Your task to perform on an android device: turn on the 24-hour format for clock Image 0: 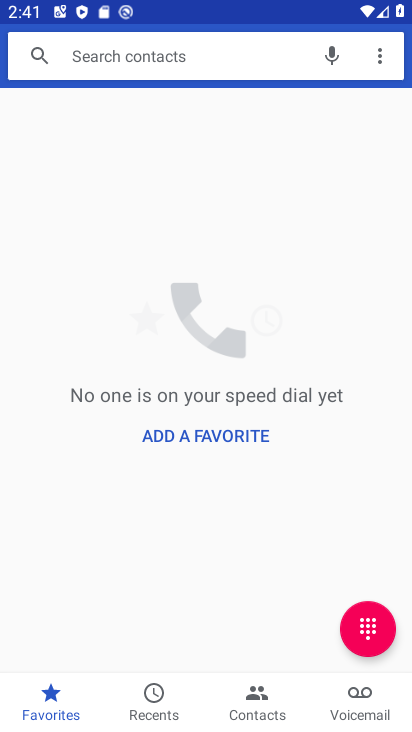
Step 0: press home button
Your task to perform on an android device: turn on the 24-hour format for clock Image 1: 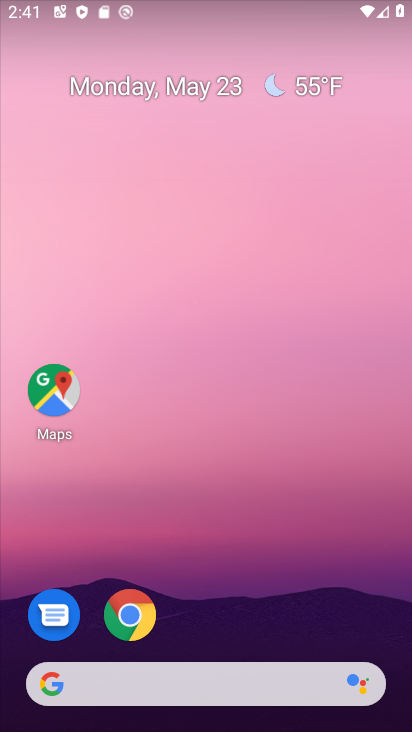
Step 1: drag from (386, 630) to (366, 166)
Your task to perform on an android device: turn on the 24-hour format for clock Image 2: 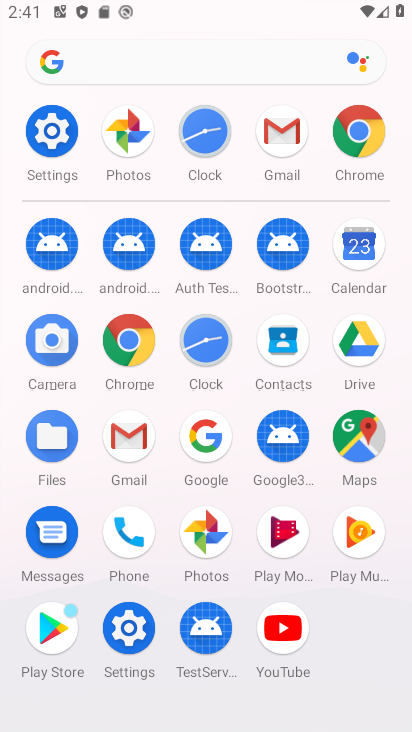
Step 2: click (212, 350)
Your task to perform on an android device: turn on the 24-hour format for clock Image 3: 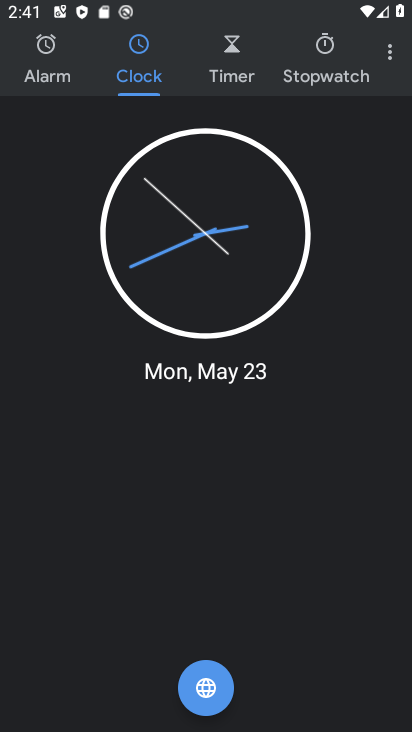
Step 3: click (389, 59)
Your task to perform on an android device: turn on the 24-hour format for clock Image 4: 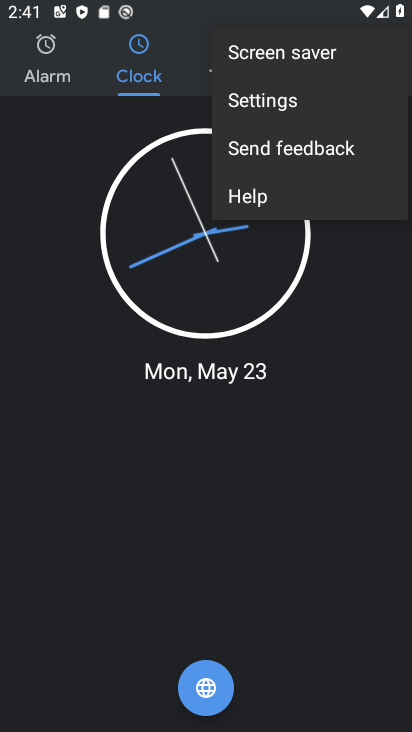
Step 4: click (317, 120)
Your task to perform on an android device: turn on the 24-hour format for clock Image 5: 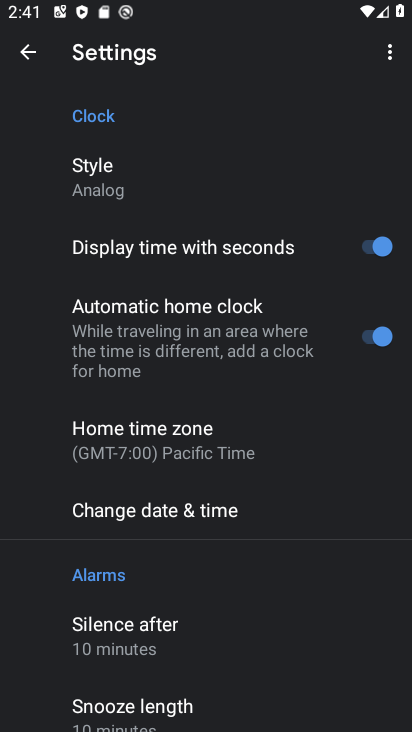
Step 5: drag from (328, 520) to (325, 392)
Your task to perform on an android device: turn on the 24-hour format for clock Image 6: 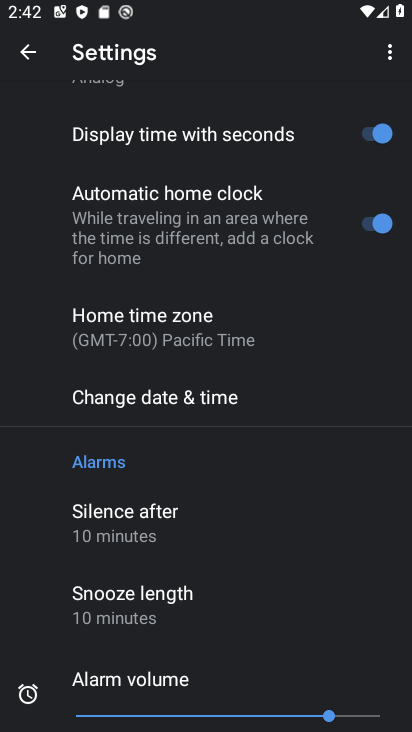
Step 6: drag from (308, 542) to (318, 438)
Your task to perform on an android device: turn on the 24-hour format for clock Image 7: 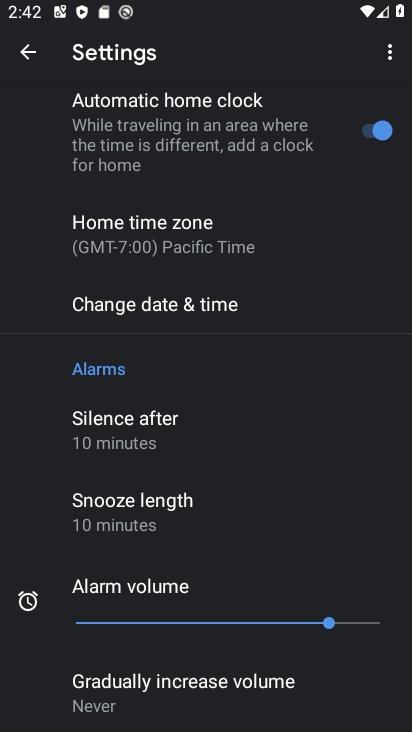
Step 7: drag from (295, 542) to (298, 447)
Your task to perform on an android device: turn on the 24-hour format for clock Image 8: 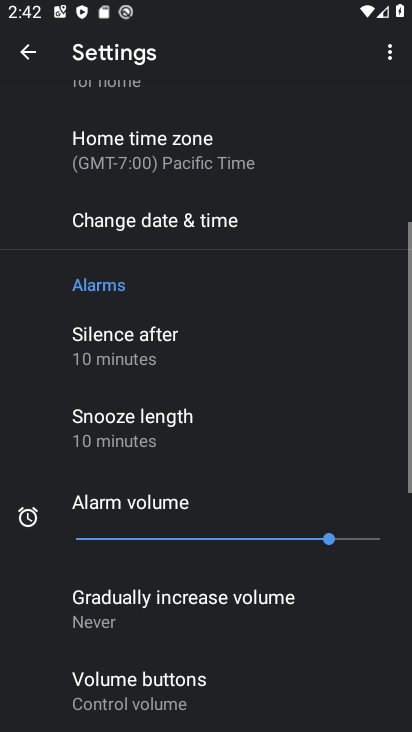
Step 8: drag from (283, 610) to (289, 496)
Your task to perform on an android device: turn on the 24-hour format for clock Image 9: 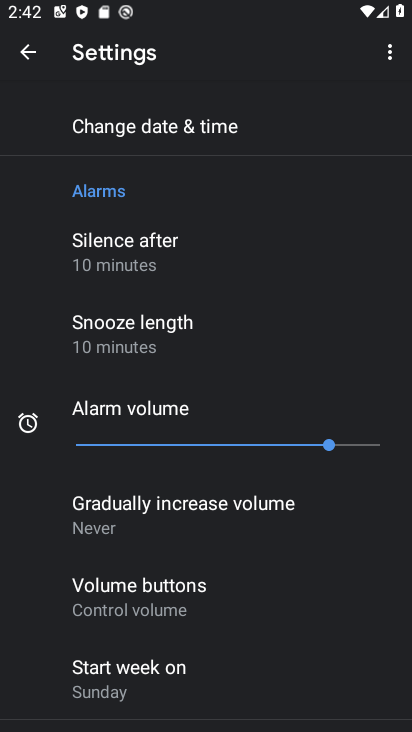
Step 9: drag from (289, 602) to (291, 517)
Your task to perform on an android device: turn on the 24-hour format for clock Image 10: 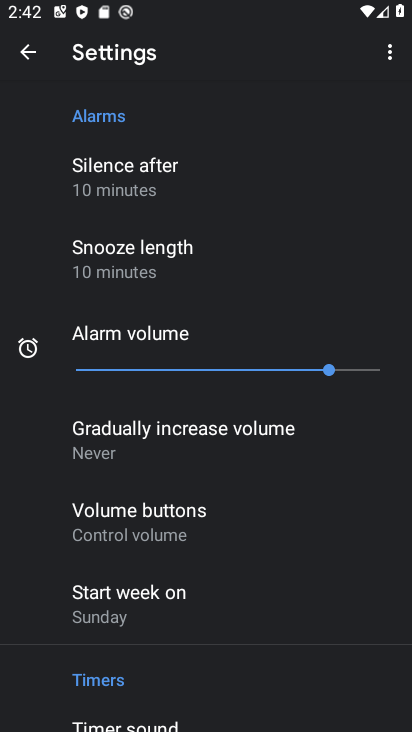
Step 10: drag from (294, 607) to (292, 509)
Your task to perform on an android device: turn on the 24-hour format for clock Image 11: 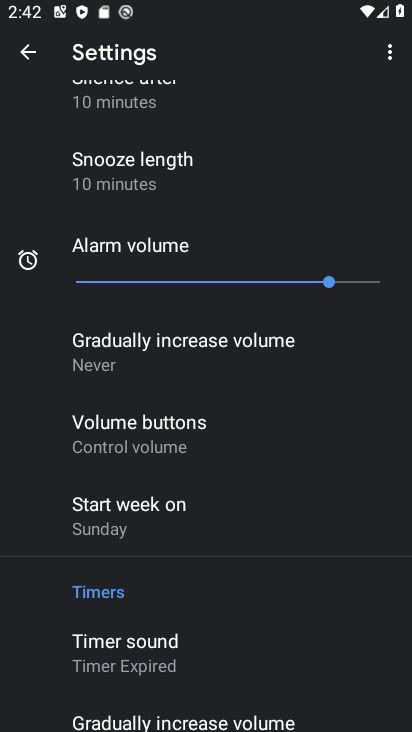
Step 11: drag from (279, 607) to (288, 528)
Your task to perform on an android device: turn on the 24-hour format for clock Image 12: 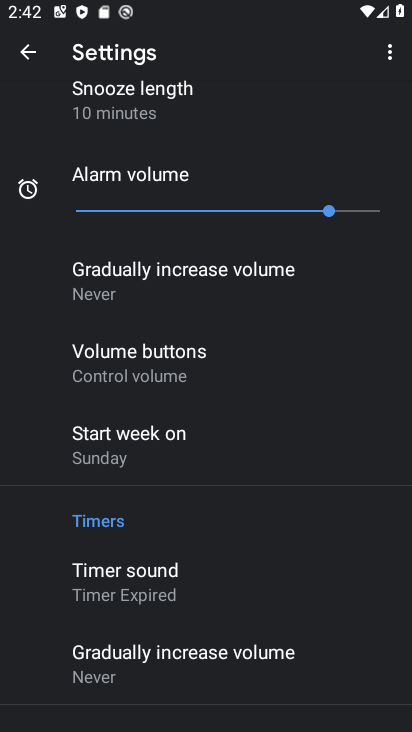
Step 12: drag from (290, 664) to (309, 533)
Your task to perform on an android device: turn on the 24-hour format for clock Image 13: 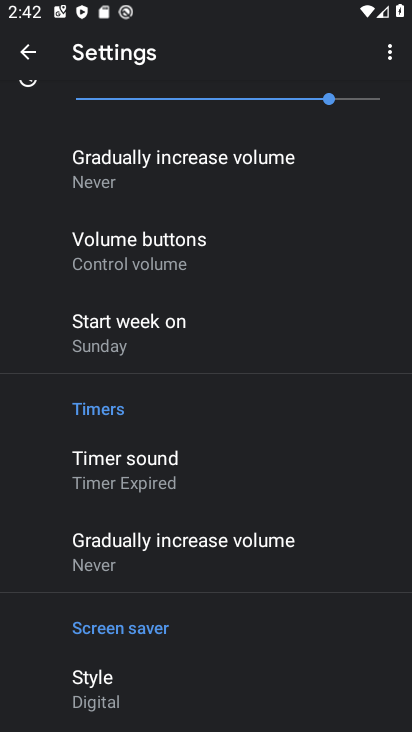
Step 13: drag from (291, 636) to (290, 536)
Your task to perform on an android device: turn on the 24-hour format for clock Image 14: 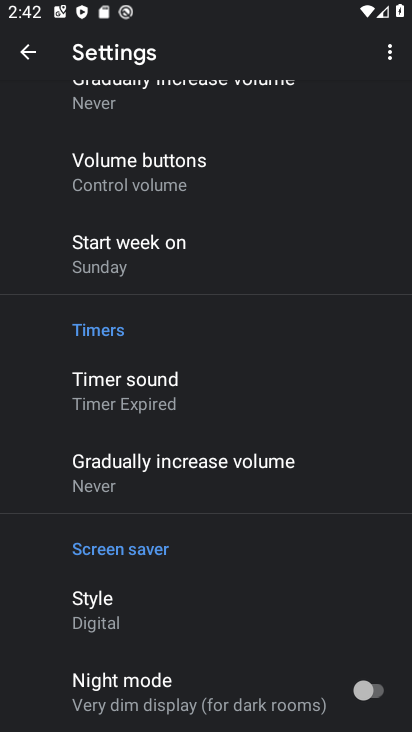
Step 14: drag from (288, 626) to (294, 525)
Your task to perform on an android device: turn on the 24-hour format for clock Image 15: 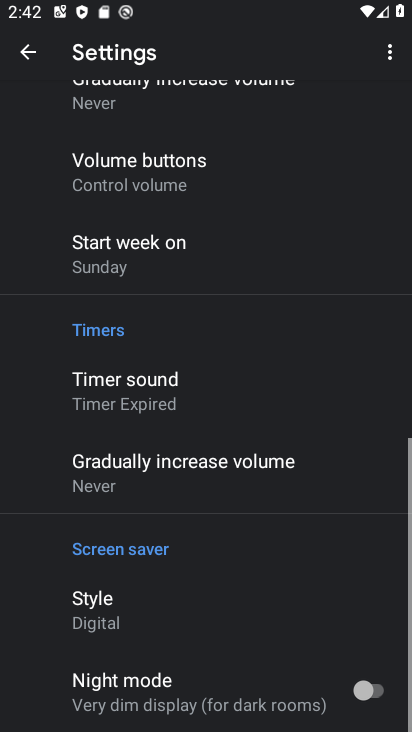
Step 15: drag from (329, 387) to (318, 477)
Your task to perform on an android device: turn on the 24-hour format for clock Image 16: 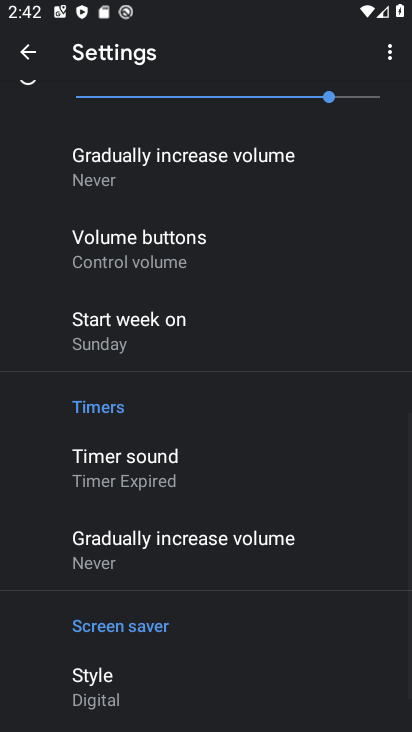
Step 16: drag from (309, 384) to (309, 475)
Your task to perform on an android device: turn on the 24-hour format for clock Image 17: 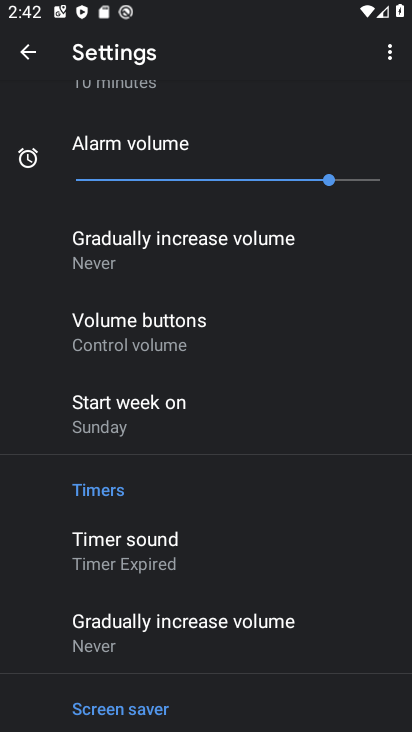
Step 17: drag from (300, 338) to (304, 449)
Your task to perform on an android device: turn on the 24-hour format for clock Image 18: 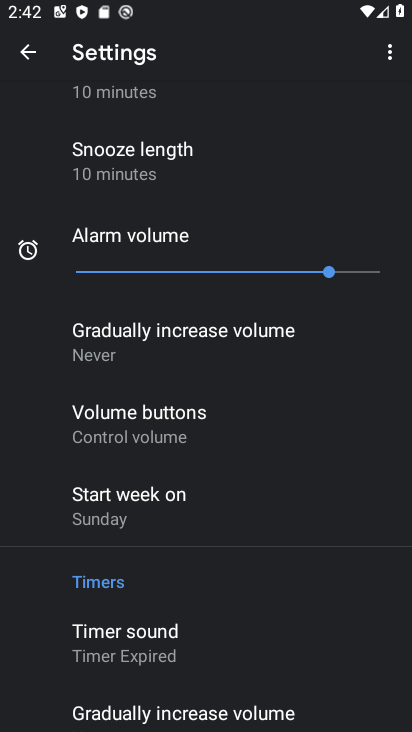
Step 18: drag from (292, 311) to (301, 425)
Your task to perform on an android device: turn on the 24-hour format for clock Image 19: 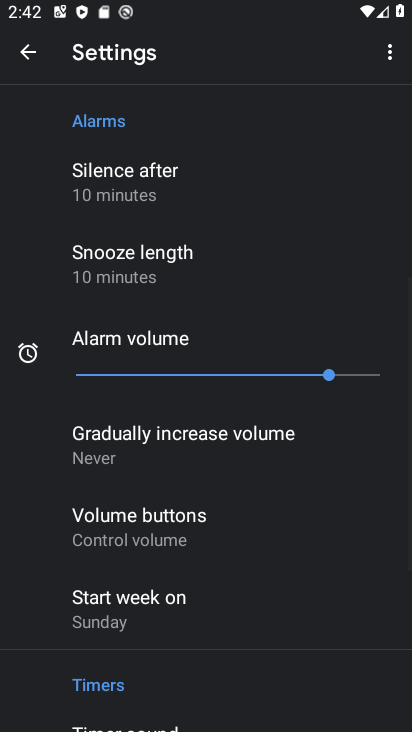
Step 19: drag from (285, 273) to (272, 398)
Your task to perform on an android device: turn on the 24-hour format for clock Image 20: 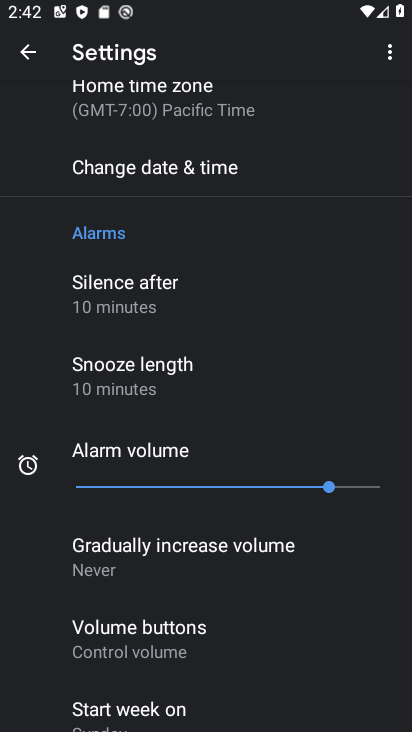
Step 20: drag from (279, 289) to (284, 479)
Your task to perform on an android device: turn on the 24-hour format for clock Image 21: 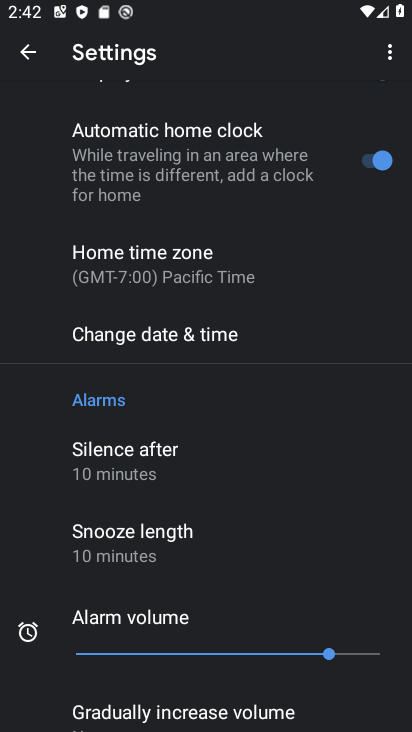
Step 21: drag from (308, 268) to (292, 420)
Your task to perform on an android device: turn on the 24-hour format for clock Image 22: 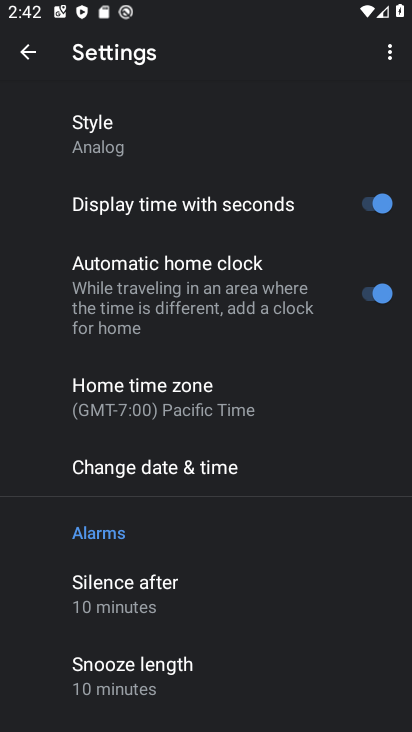
Step 22: click (226, 475)
Your task to perform on an android device: turn on the 24-hour format for clock Image 23: 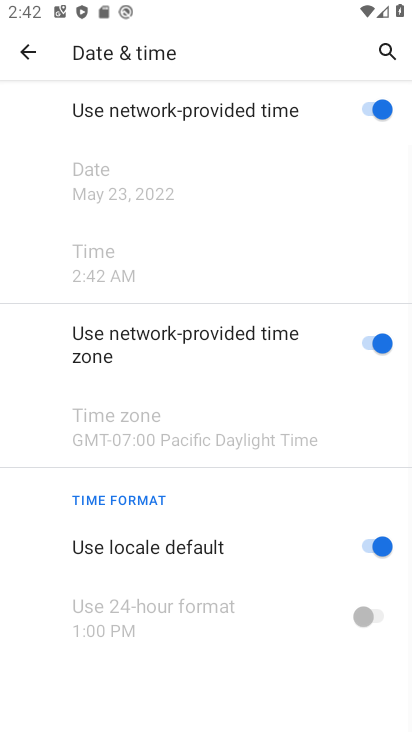
Step 23: drag from (254, 574) to (279, 468)
Your task to perform on an android device: turn on the 24-hour format for clock Image 24: 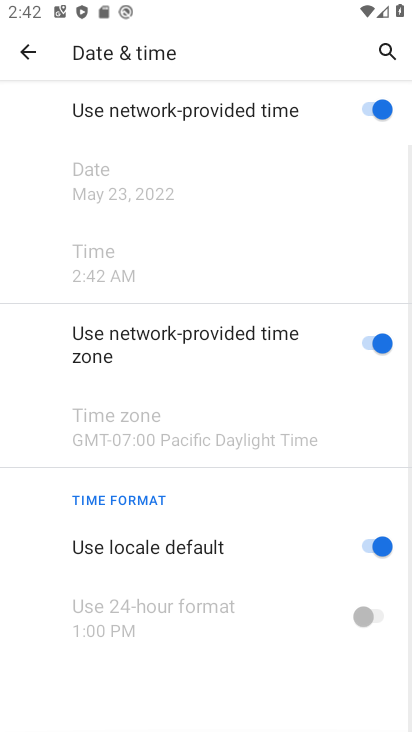
Step 24: click (365, 541)
Your task to perform on an android device: turn on the 24-hour format for clock Image 25: 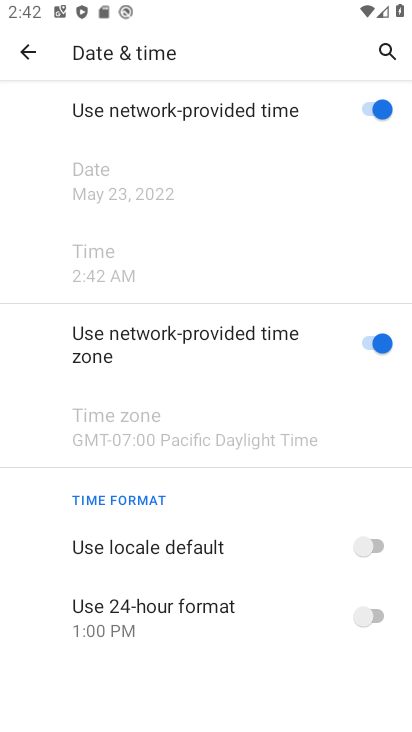
Step 25: click (353, 635)
Your task to perform on an android device: turn on the 24-hour format for clock Image 26: 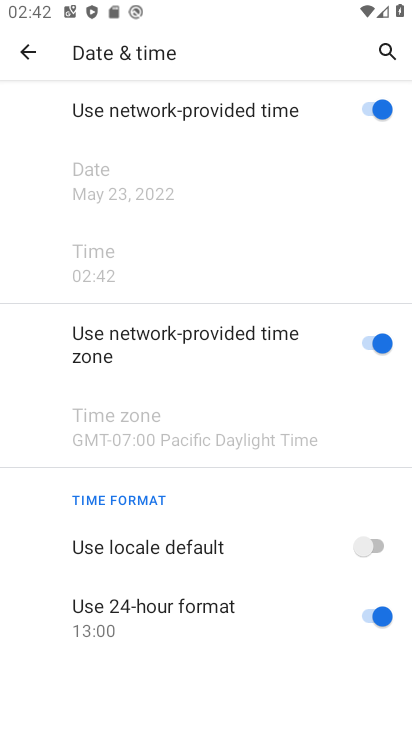
Step 26: task complete